Your task to perform on an android device: clear history in the chrome app Image 0: 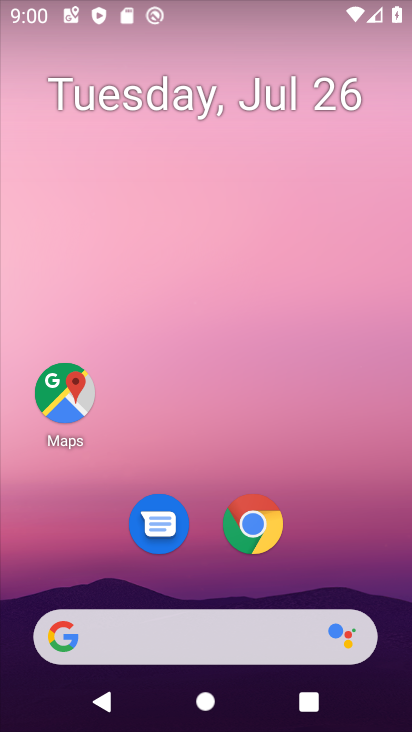
Step 0: press home button
Your task to perform on an android device: clear history in the chrome app Image 1: 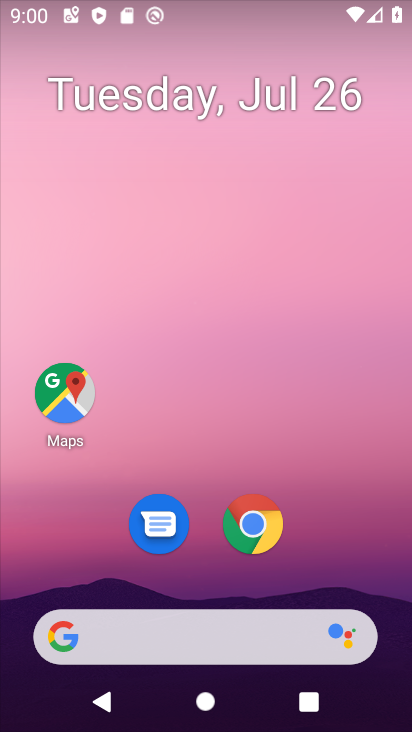
Step 1: click (259, 532)
Your task to perform on an android device: clear history in the chrome app Image 2: 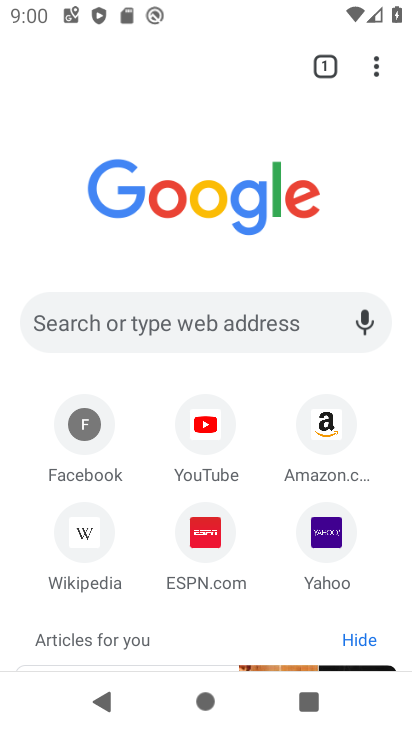
Step 2: click (380, 64)
Your task to perform on an android device: clear history in the chrome app Image 3: 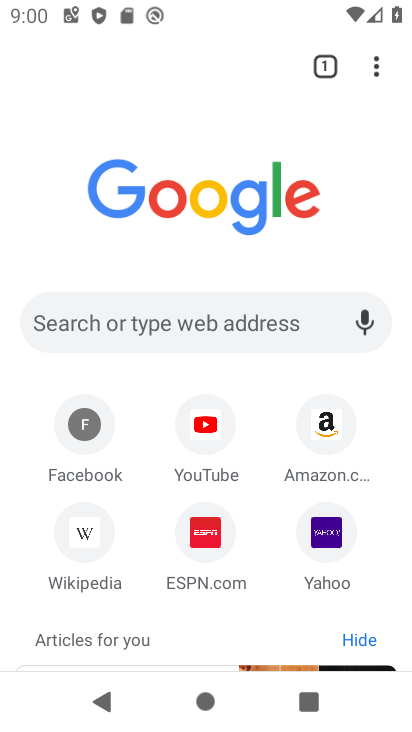
Step 3: drag from (371, 74) to (178, 375)
Your task to perform on an android device: clear history in the chrome app Image 4: 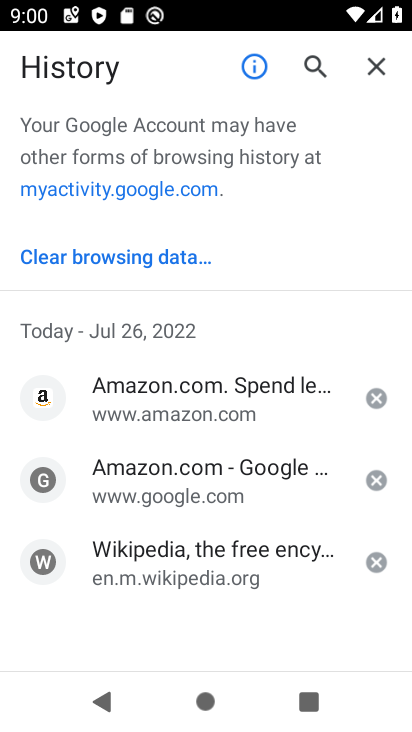
Step 4: click (116, 254)
Your task to perform on an android device: clear history in the chrome app Image 5: 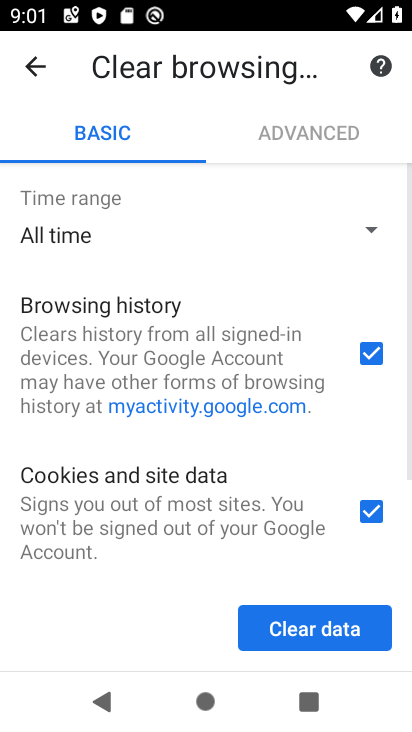
Step 5: drag from (195, 528) to (363, 228)
Your task to perform on an android device: clear history in the chrome app Image 6: 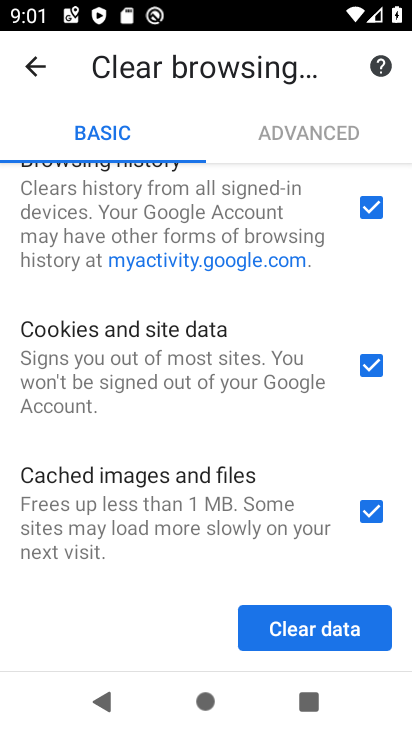
Step 6: click (303, 627)
Your task to perform on an android device: clear history in the chrome app Image 7: 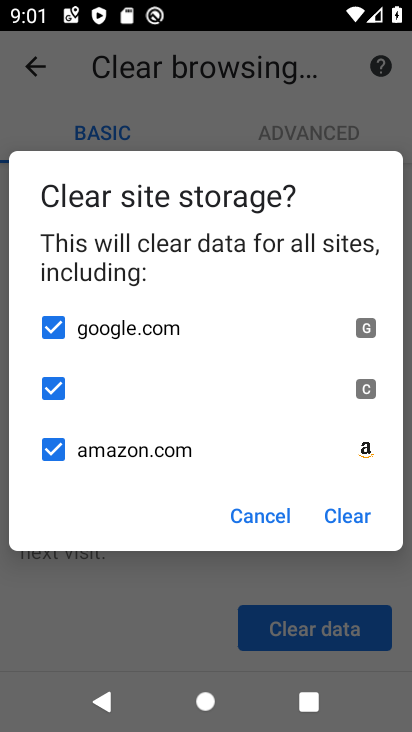
Step 7: click (339, 512)
Your task to perform on an android device: clear history in the chrome app Image 8: 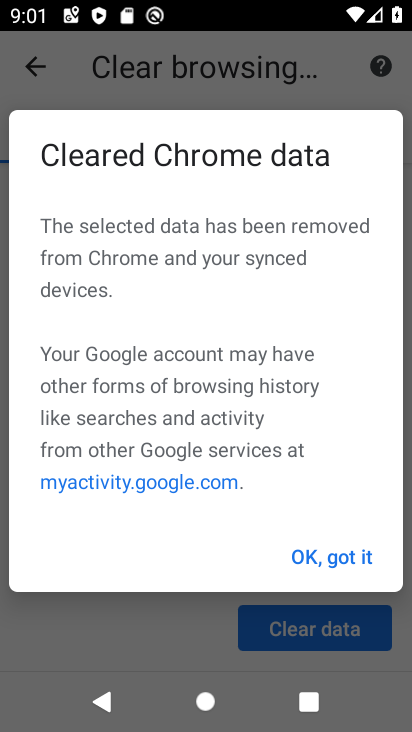
Step 8: click (364, 560)
Your task to perform on an android device: clear history in the chrome app Image 9: 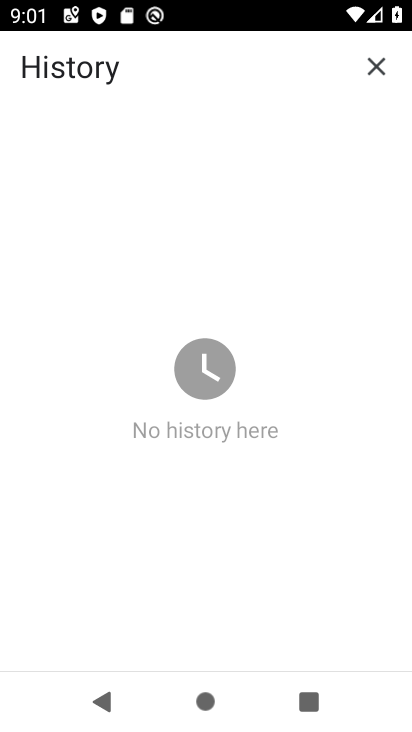
Step 9: task complete